Your task to perform on an android device: clear all cookies in the chrome app Image 0: 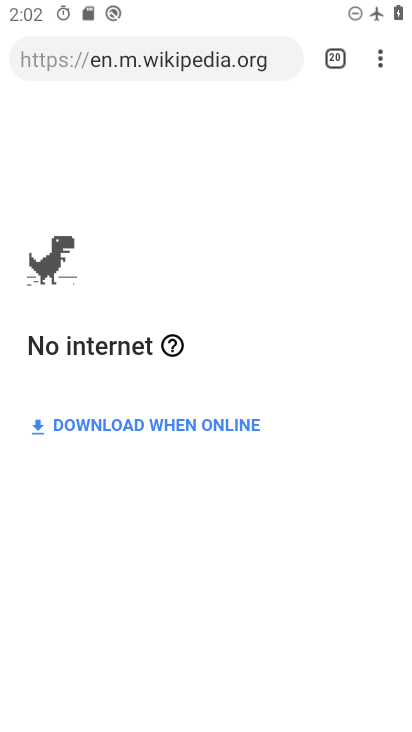
Step 0: press home button
Your task to perform on an android device: clear all cookies in the chrome app Image 1: 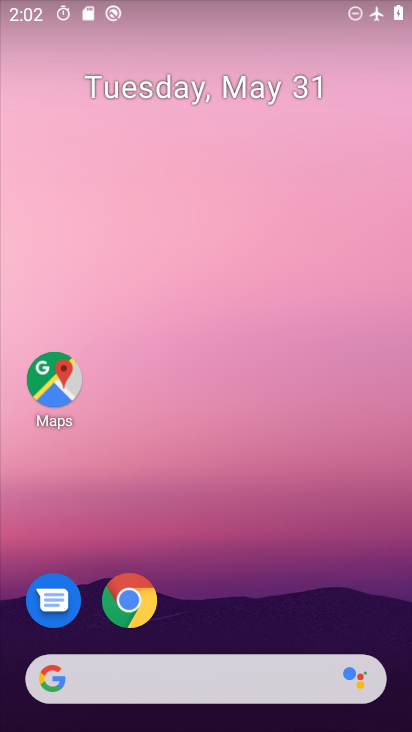
Step 1: click (137, 607)
Your task to perform on an android device: clear all cookies in the chrome app Image 2: 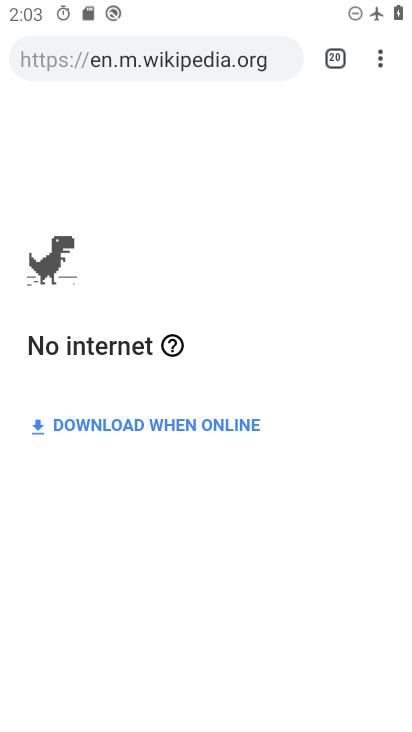
Step 2: click (382, 62)
Your task to perform on an android device: clear all cookies in the chrome app Image 3: 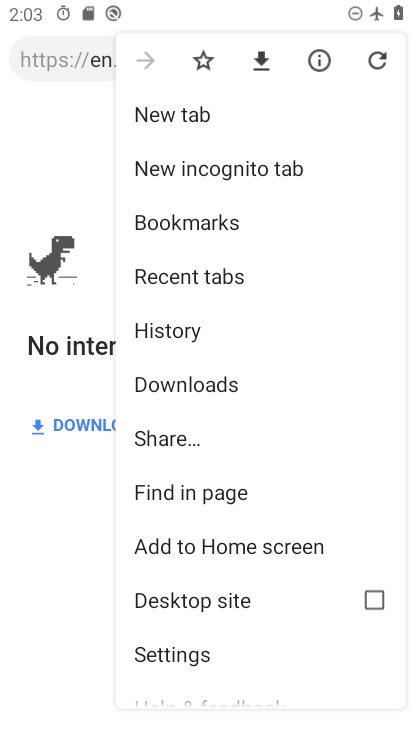
Step 3: click (166, 650)
Your task to perform on an android device: clear all cookies in the chrome app Image 4: 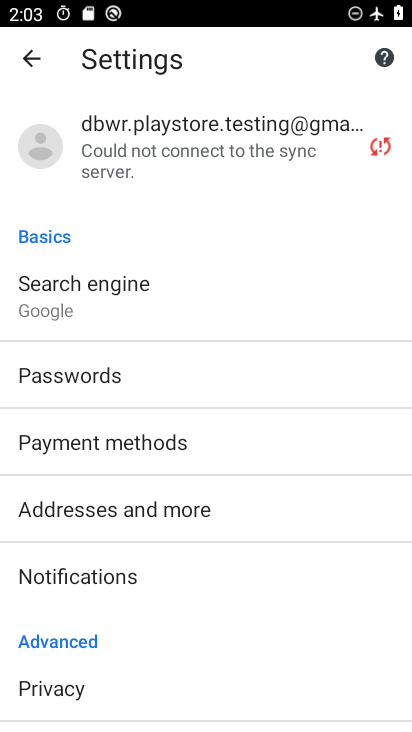
Step 4: drag from (156, 686) to (175, 328)
Your task to perform on an android device: clear all cookies in the chrome app Image 5: 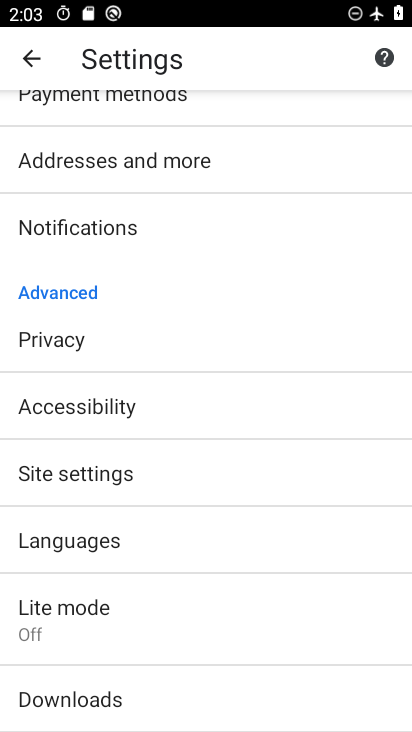
Step 5: click (69, 337)
Your task to perform on an android device: clear all cookies in the chrome app Image 6: 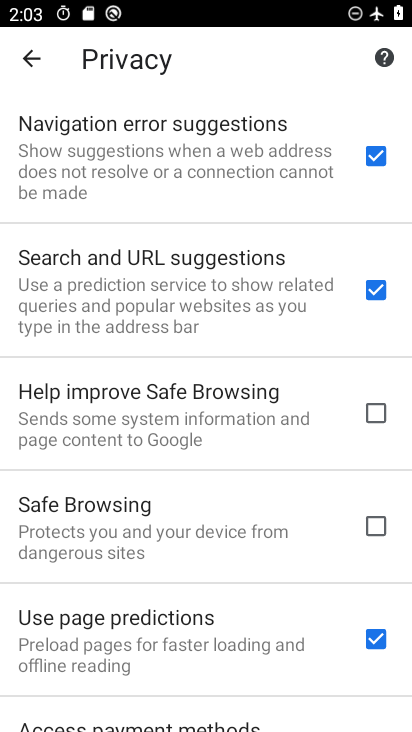
Step 6: drag from (159, 695) to (179, 372)
Your task to perform on an android device: clear all cookies in the chrome app Image 7: 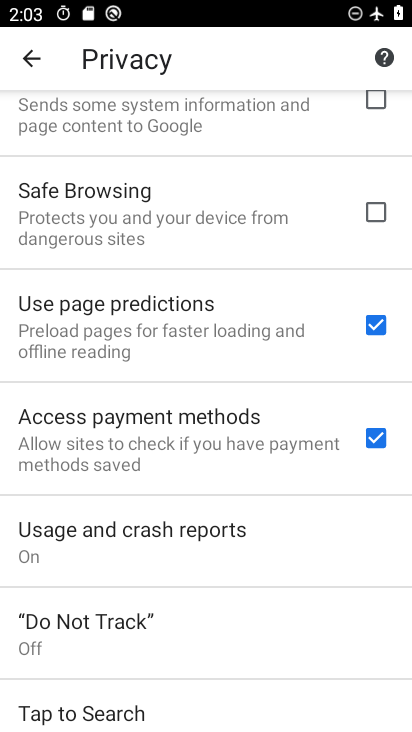
Step 7: drag from (160, 697) to (156, 250)
Your task to perform on an android device: clear all cookies in the chrome app Image 8: 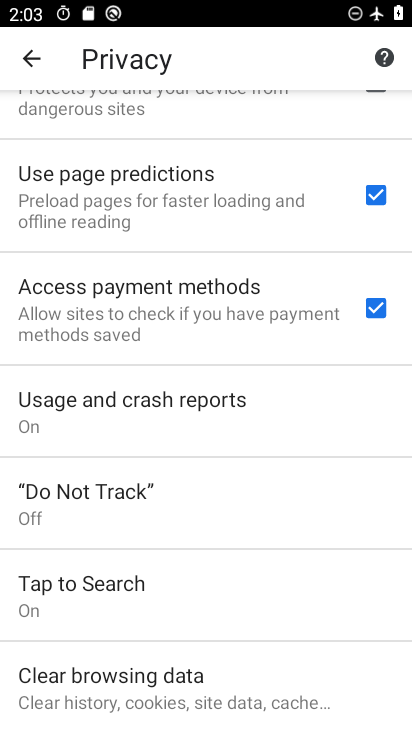
Step 8: click (137, 658)
Your task to perform on an android device: clear all cookies in the chrome app Image 9: 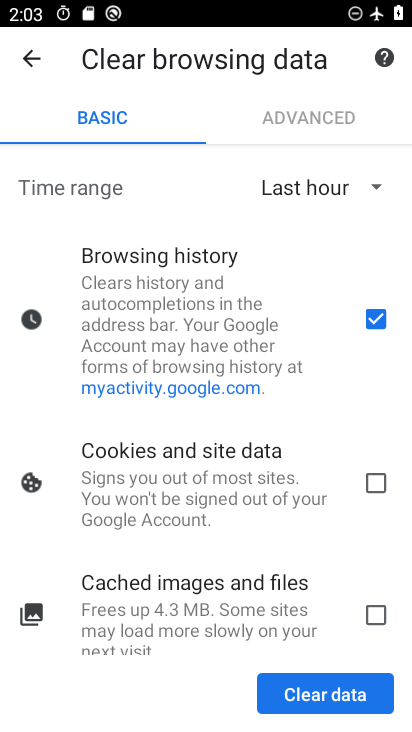
Step 9: click (374, 319)
Your task to perform on an android device: clear all cookies in the chrome app Image 10: 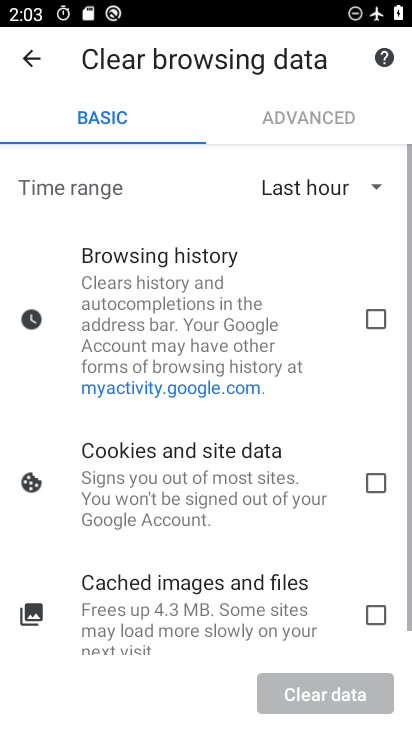
Step 10: click (374, 481)
Your task to perform on an android device: clear all cookies in the chrome app Image 11: 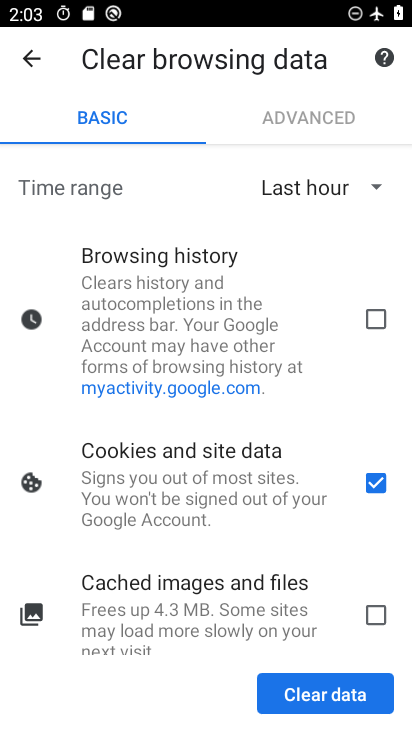
Step 11: click (338, 692)
Your task to perform on an android device: clear all cookies in the chrome app Image 12: 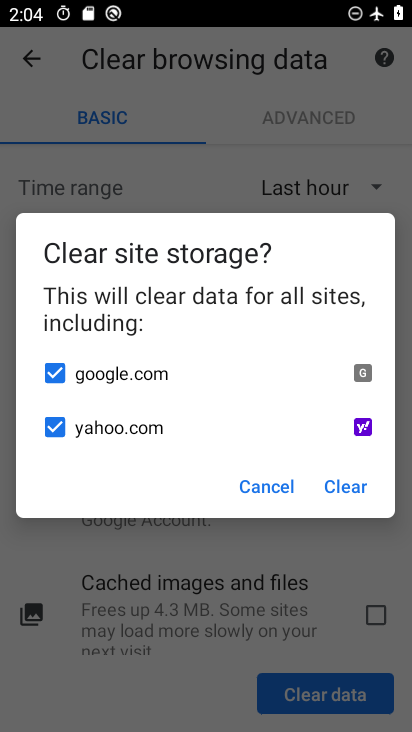
Step 12: click (346, 482)
Your task to perform on an android device: clear all cookies in the chrome app Image 13: 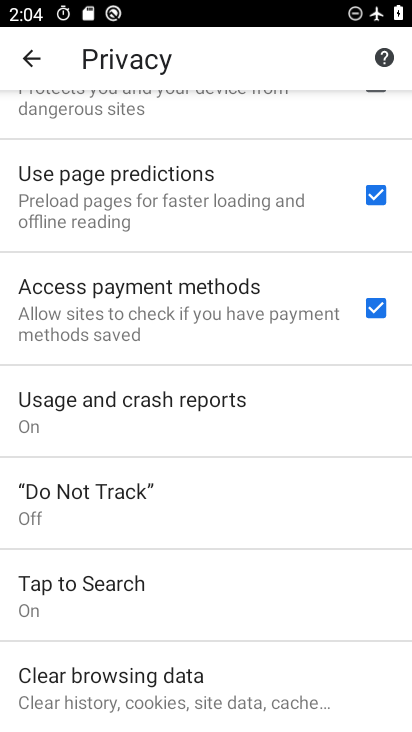
Step 13: task complete